Your task to perform on an android device: open wifi settings Image 0: 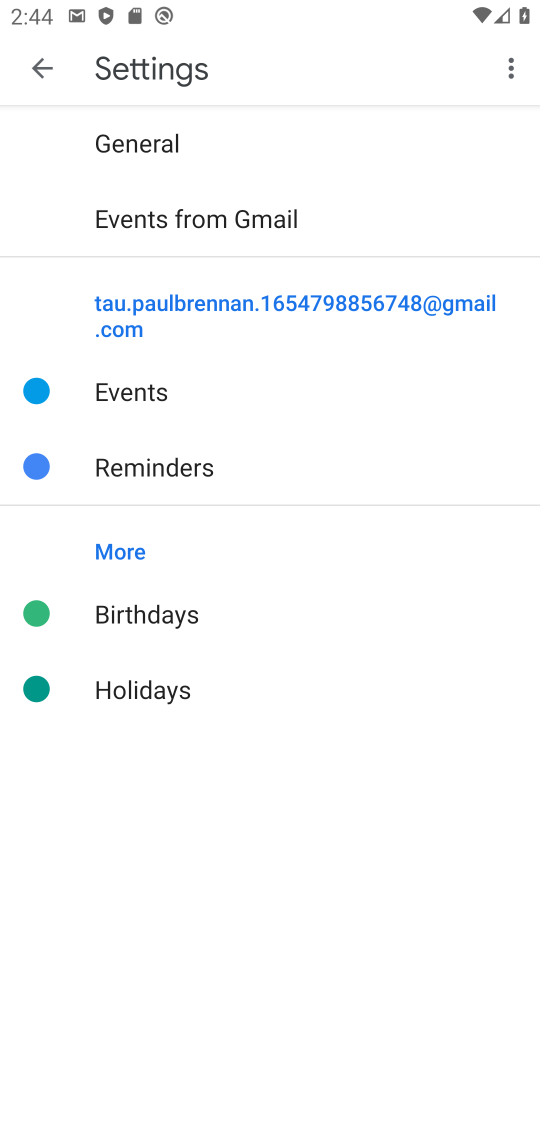
Step 0: press home button
Your task to perform on an android device: open wifi settings Image 1: 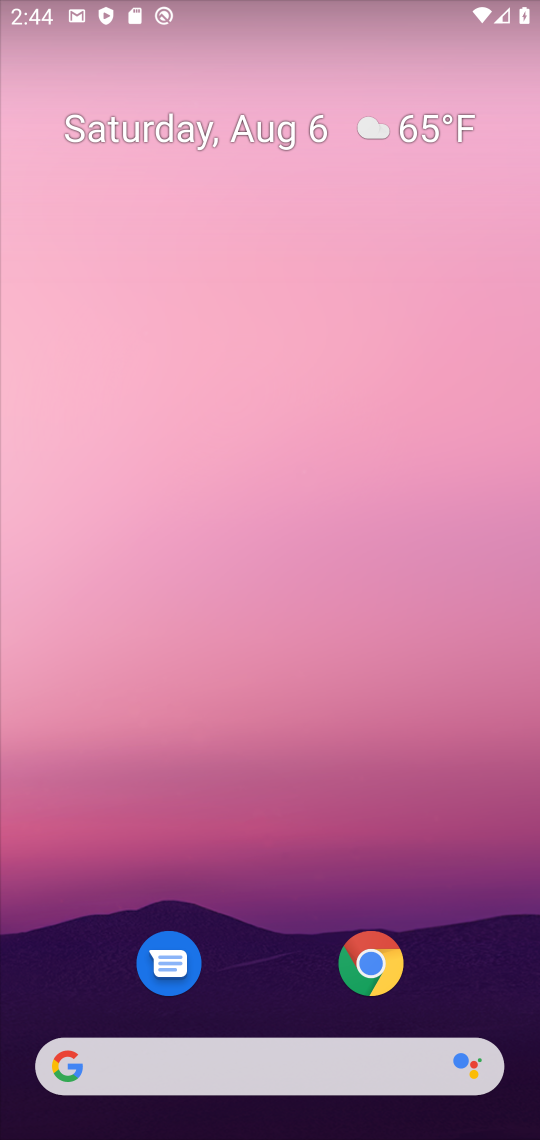
Step 1: drag from (402, 9) to (386, 700)
Your task to perform on an android device: open wifi settings Image 2: 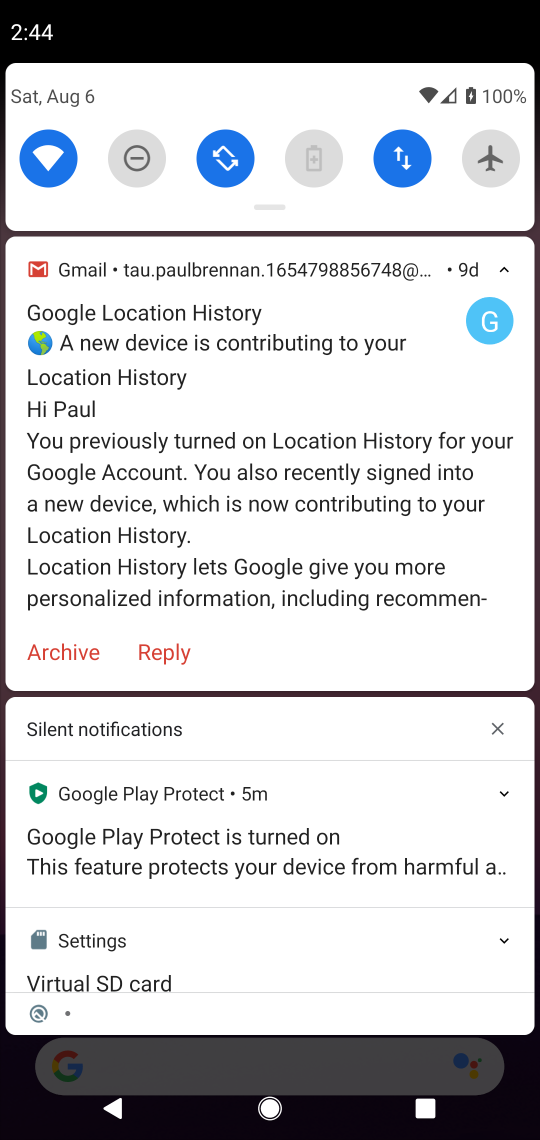
Step 2: click (42, 160)
Your task to perform on an android device: open wifi settings Image 3: 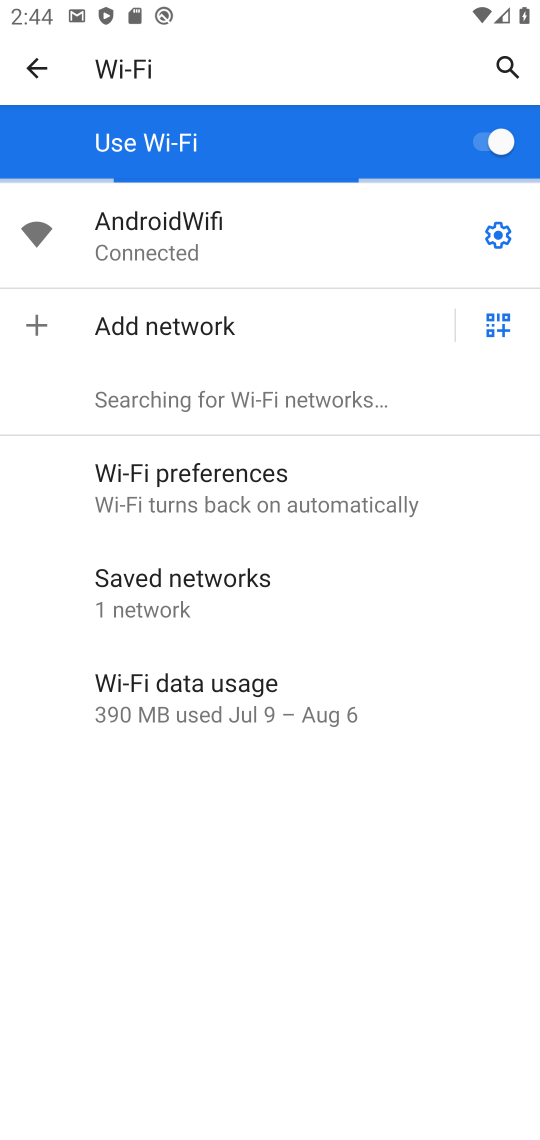
Step 3: task complete